Your task to perform on an android device: Open my contact list Image 0: 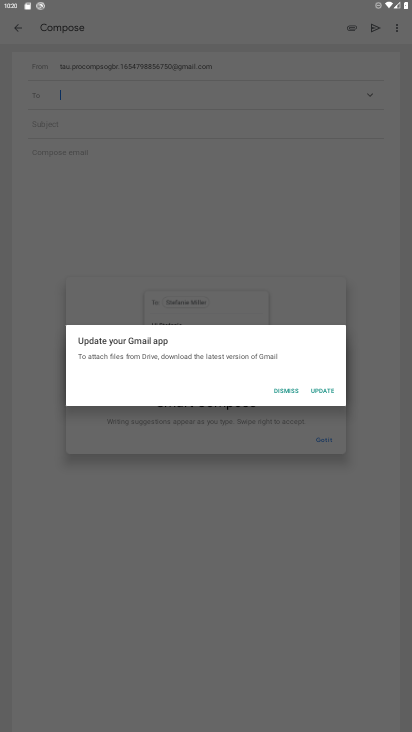
Step 0: press home button
Your task to perform on an android device: Open my contact list Image 1: 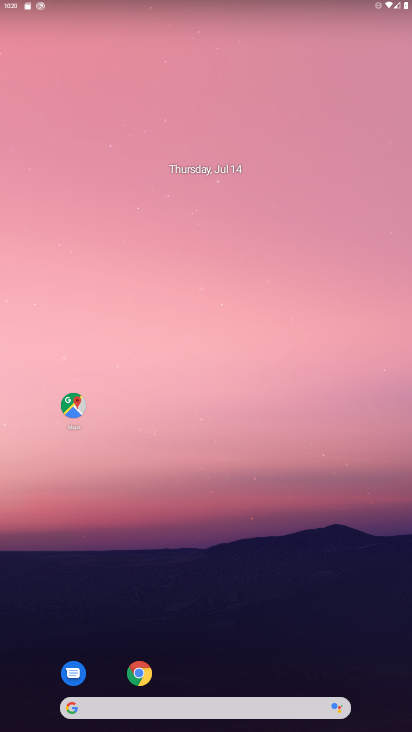
Step 1: drag from (227, 542) to (237, 11)
Your task to perform on an android device: Open my contact list Image 2: 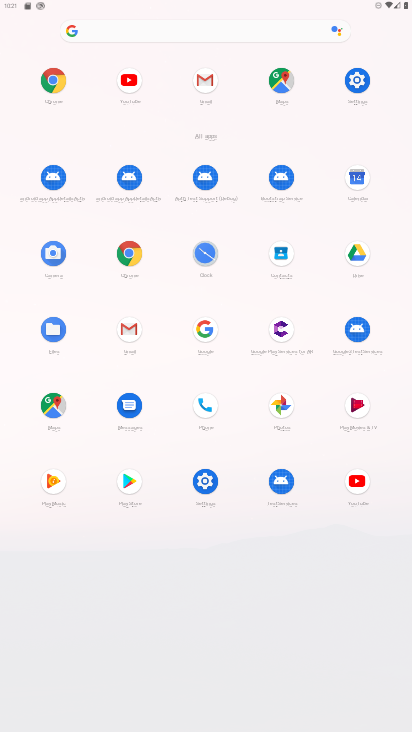
Step 2: click (281, 251)
Your task to perform on an android device: Open my contact list Image 3: 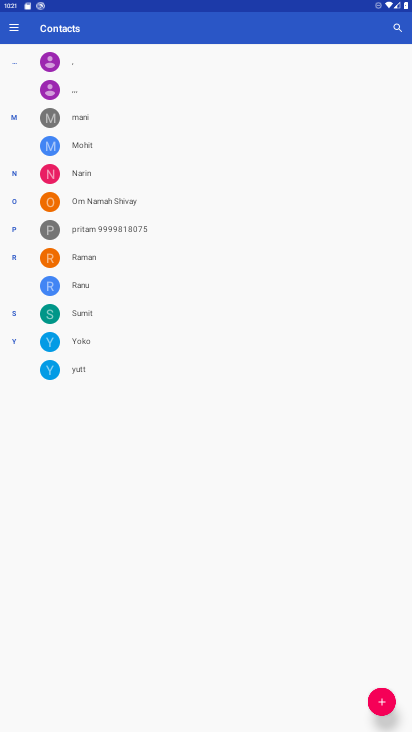
Step 3: task complete